Your task to perform on an android device: What's the news in India? Image 0: 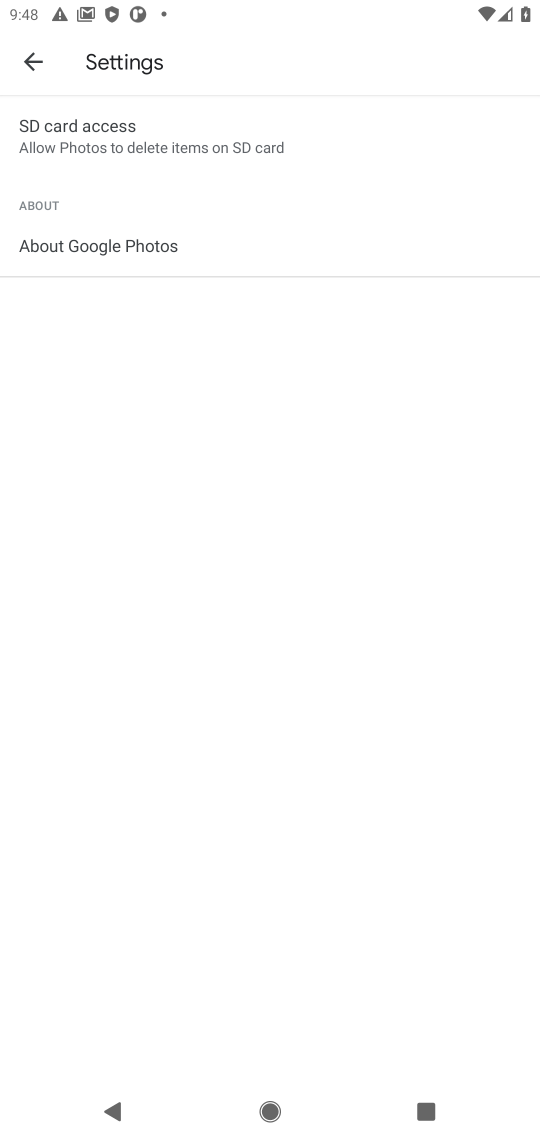
Step 0: press home button
Your task to perform on an android device: What's the news in India? Image 1: 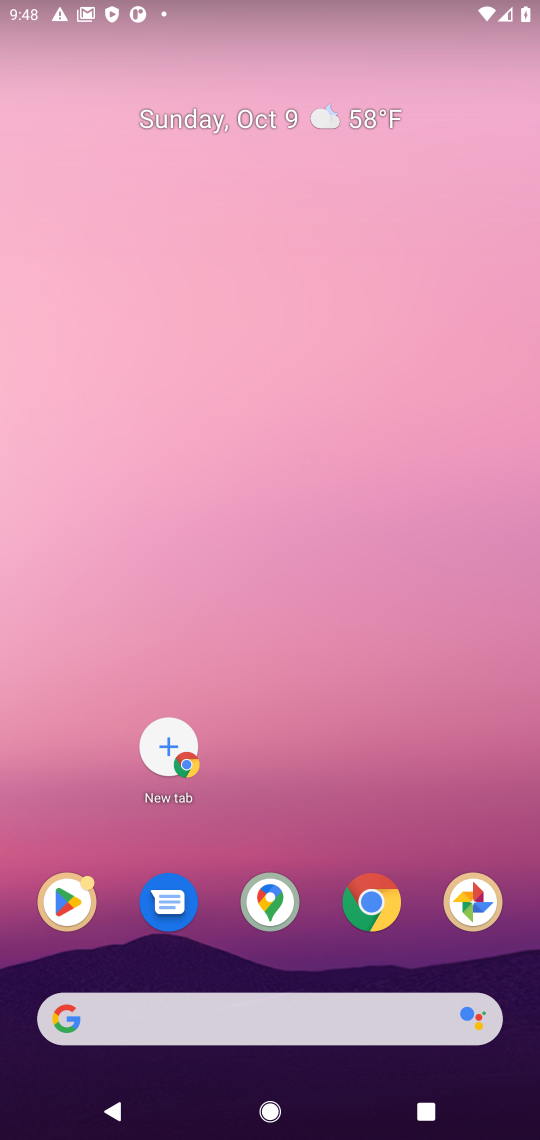
Step 1: drag from (310, 739) to (353, 204)
Your task to perform on an android device: What's the news in India? Image 2: 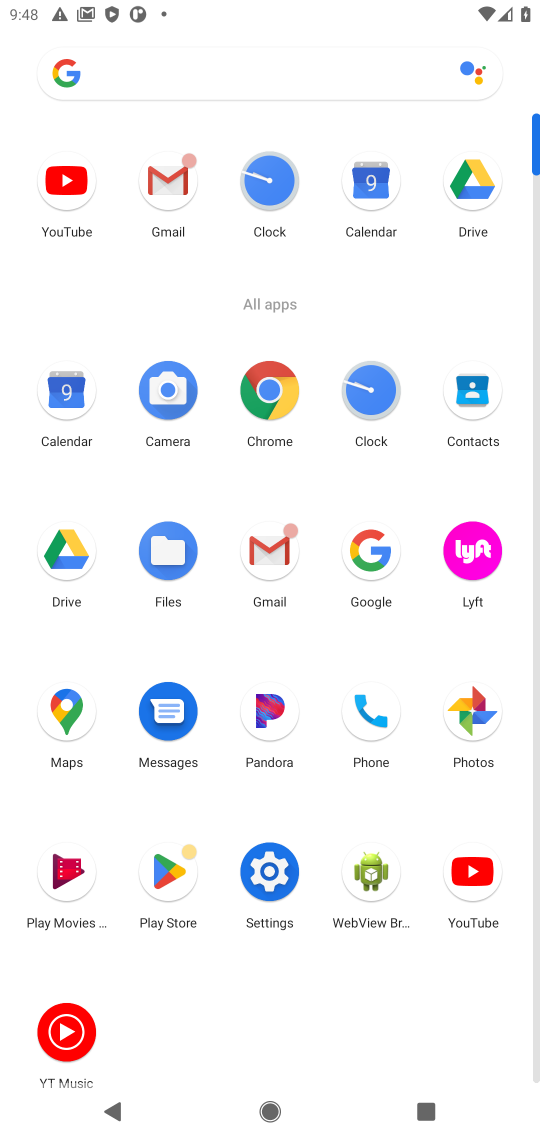
Step 2: click (477, 408)
Your task to perform on an android device: What's the news in India? Image 3: 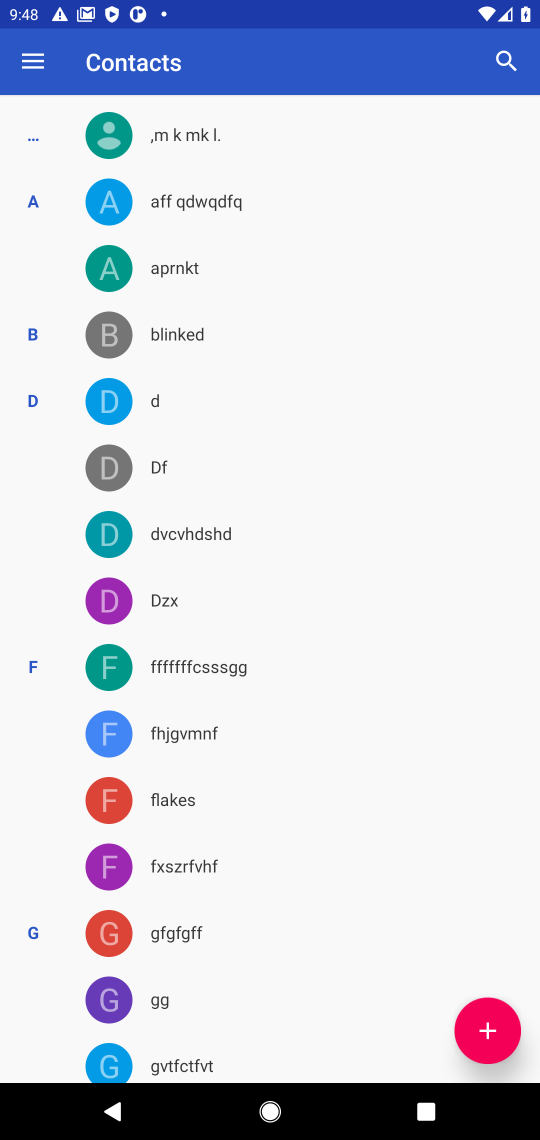
Step 3: click (283, 1115)
Your task to perform on an android device: What's the news in India? Image 4: 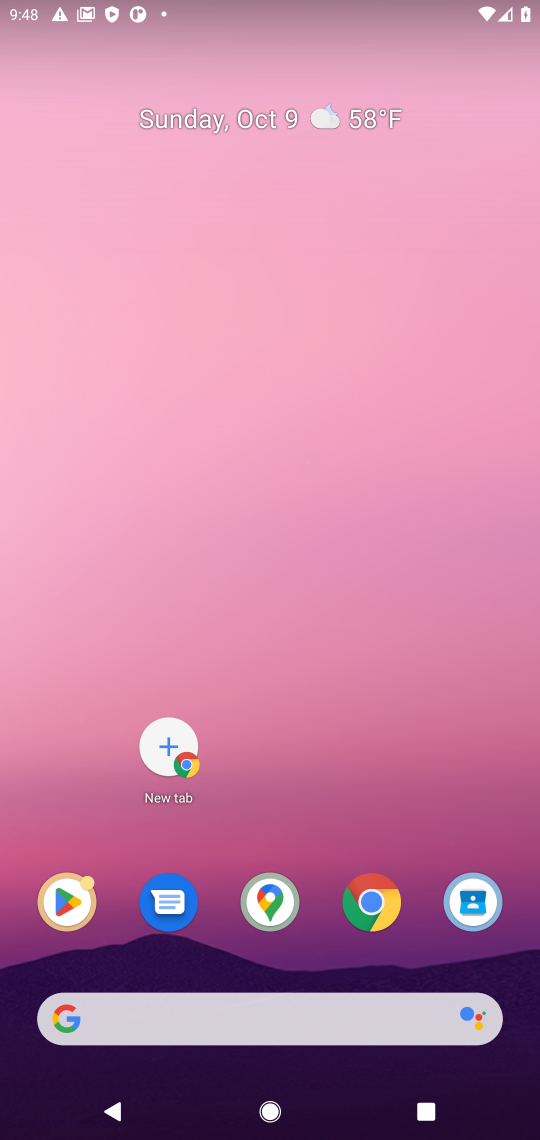
Step 4: click (379, 913)
Your task to perform on an android device: What's the news in India? Image 5: 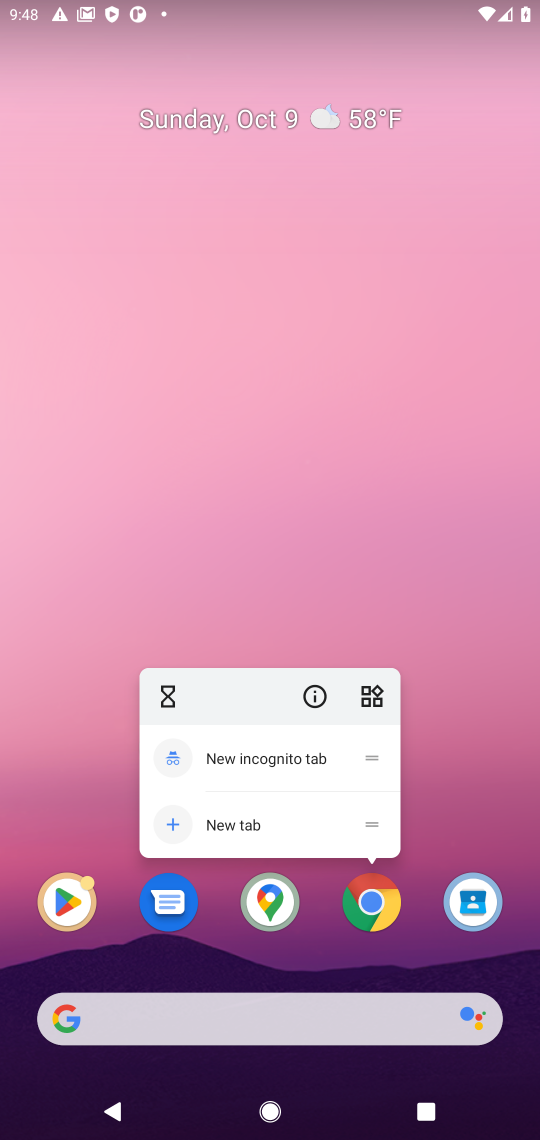
Step 5: click (379, 913)
Your task to perform on an android device: What's the news in India? Image 6: 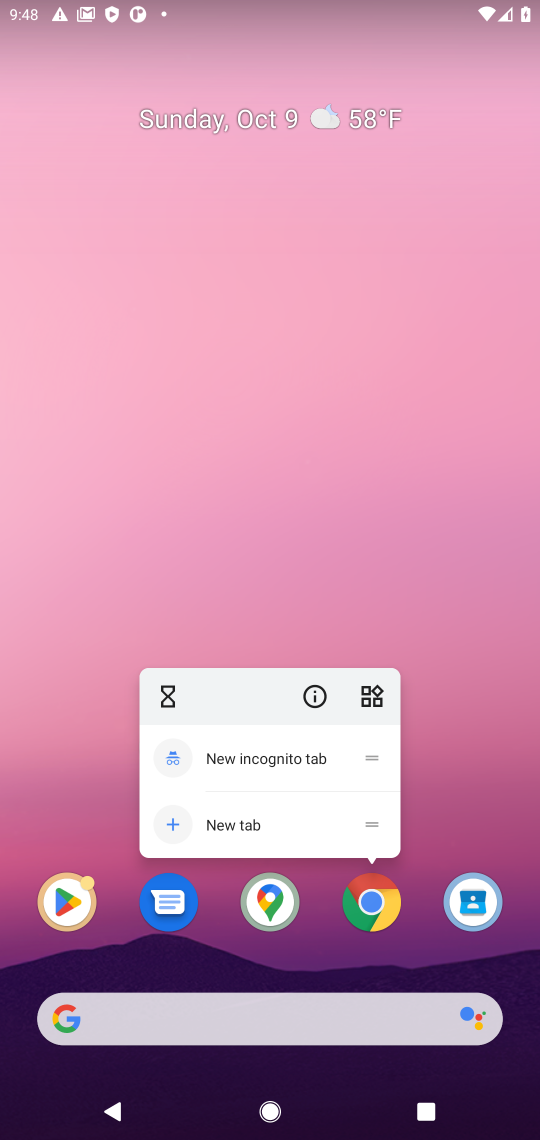
Step 6: click (370, 903)
Your task to perform on an android device: What's the news in India? Image 7: 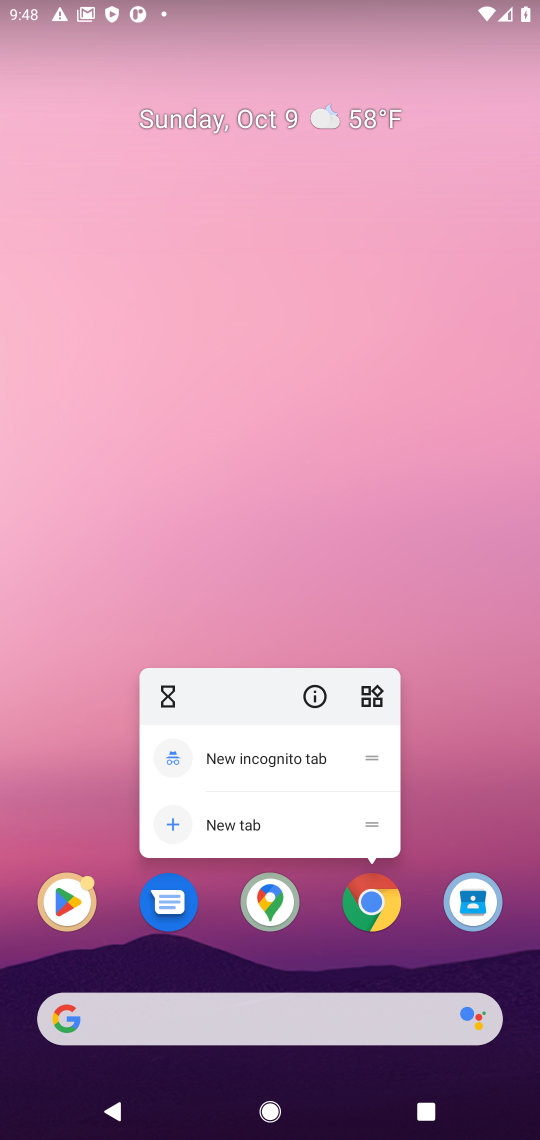
Step 7: click (370, 903)
Your task to perform on an android device: What's the news in India? Image 8: 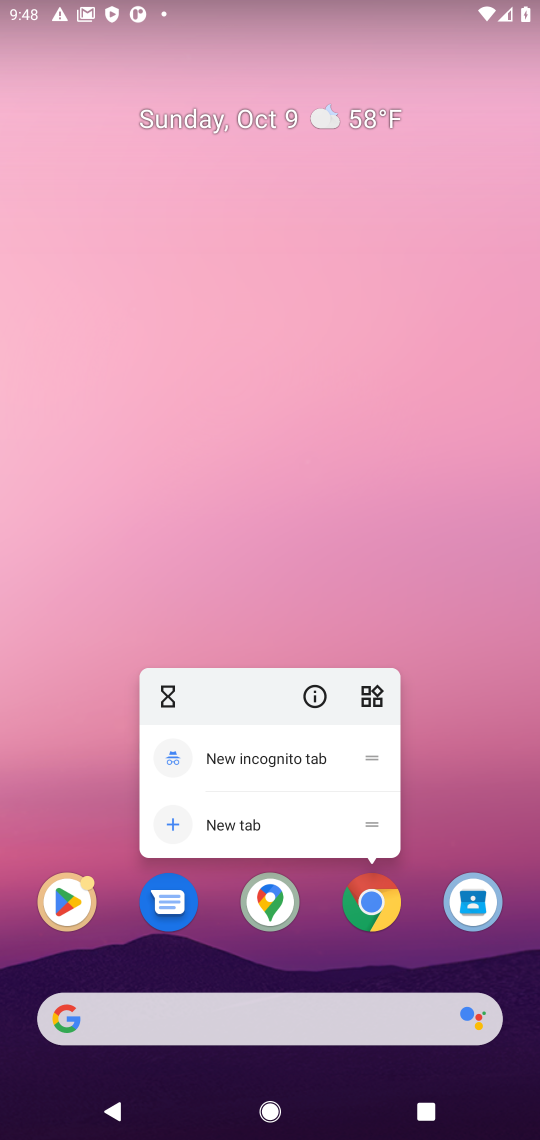
Step 8: click (415, 837)
Your task to perform on an android device: What's the news in India? Image 9: 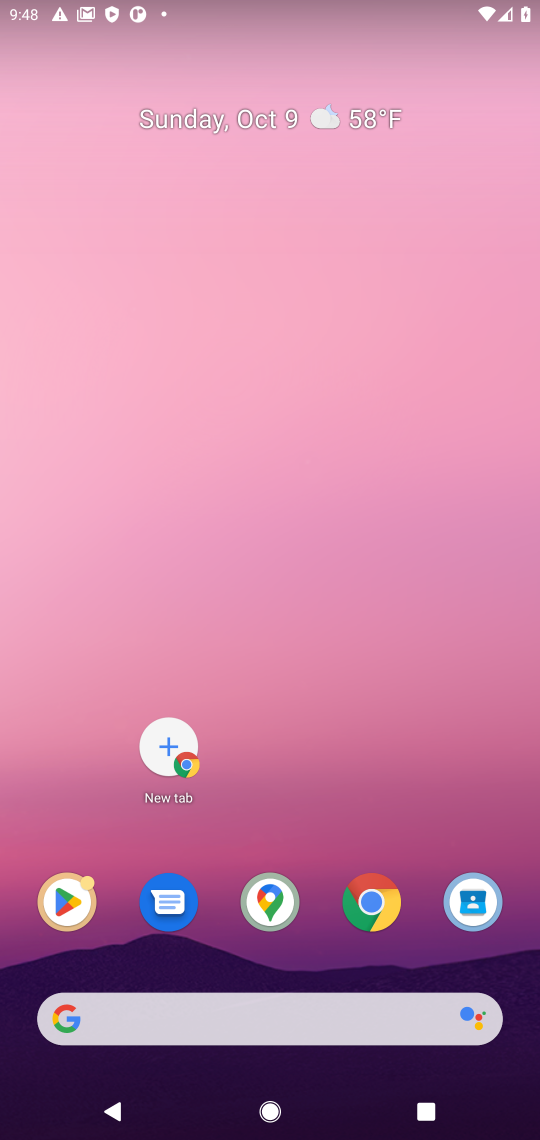
Step 9: click (379, 896)
Your task to perform on an android device: What's the news in India? Image 10: 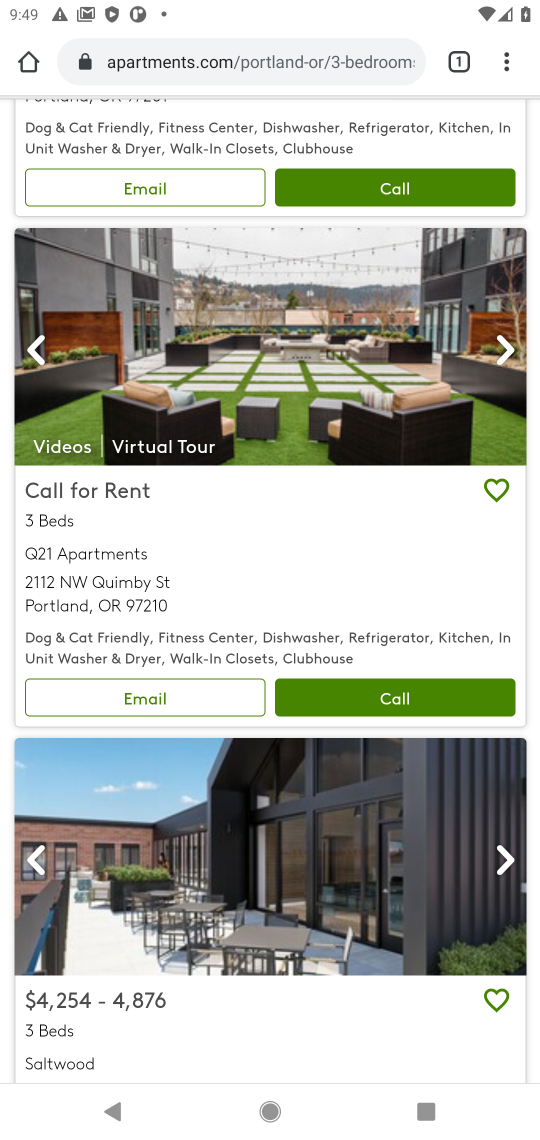
Step 10: click (266, 56)
Your task to perform on an android device: What's the news in India? Image 11: 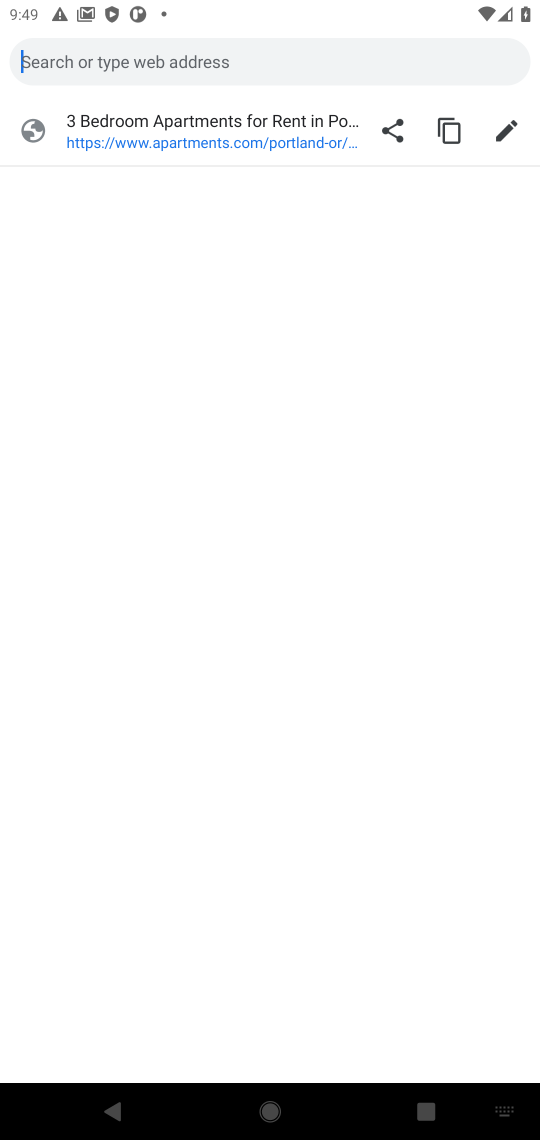
Step 11: type "India"
Your task to perform on an android device: What's the news in India? Image 12: 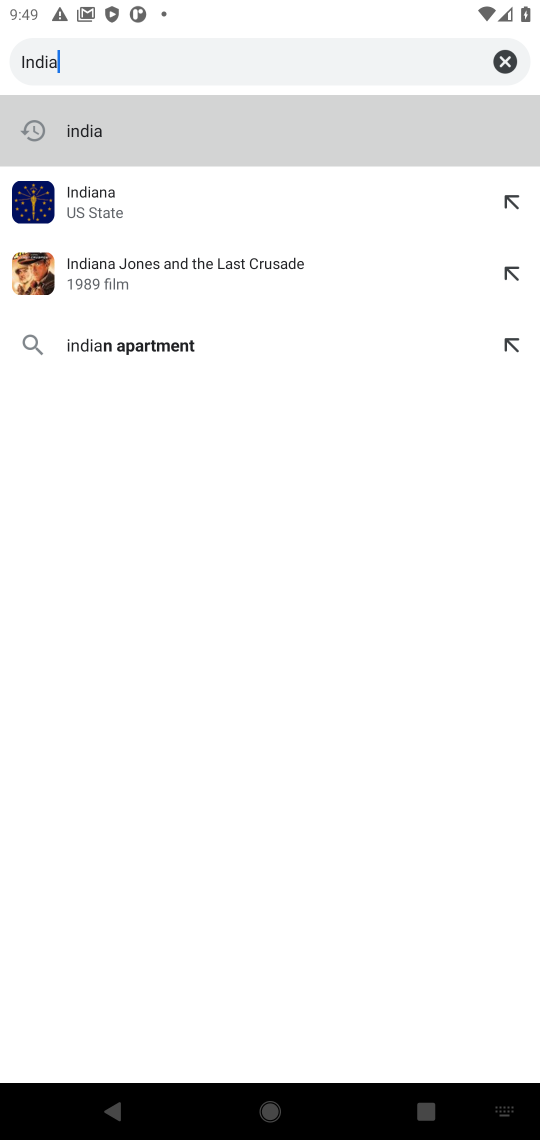
Step 12: click (97, 135)
Your task to perform on an android device: What's the news in India? Image 13: 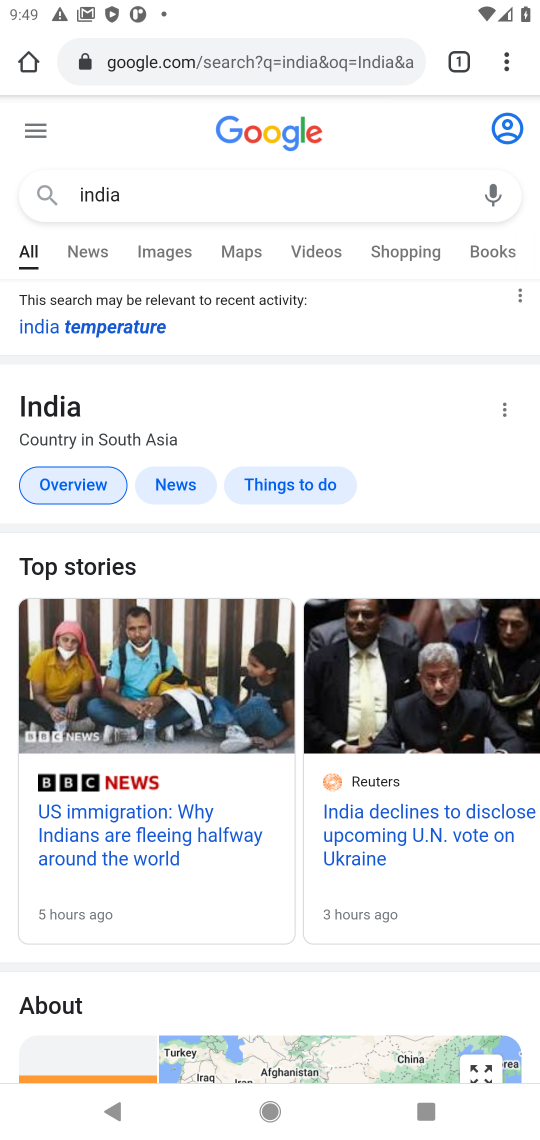
Step 13: click (83, 249)
Your task to perform on an android device: What's the news in India? Image 14: 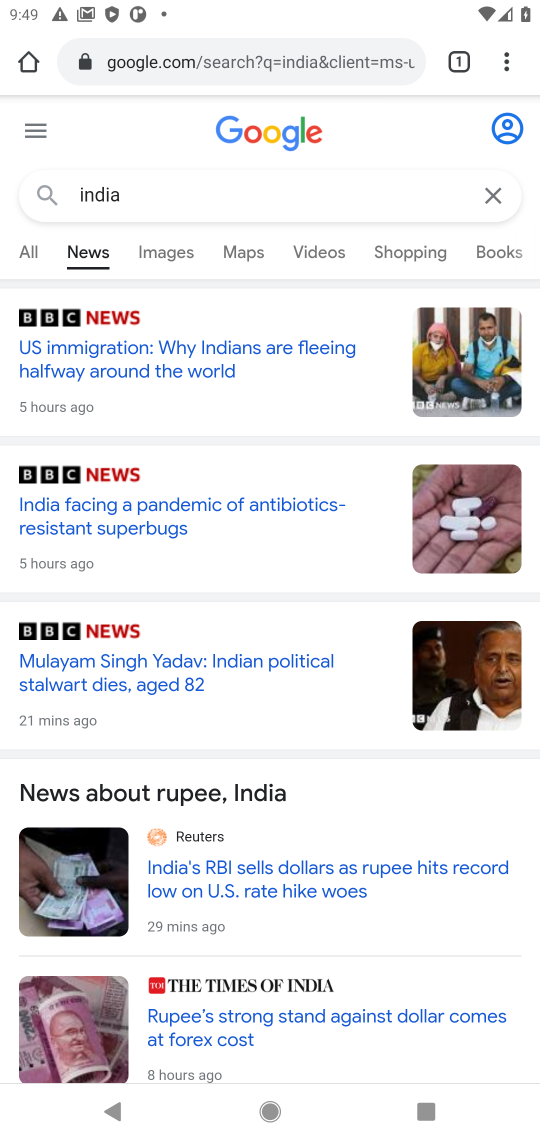
Step 14: task complete